Your task to perform on an android device: Go to battery settings Image 0: 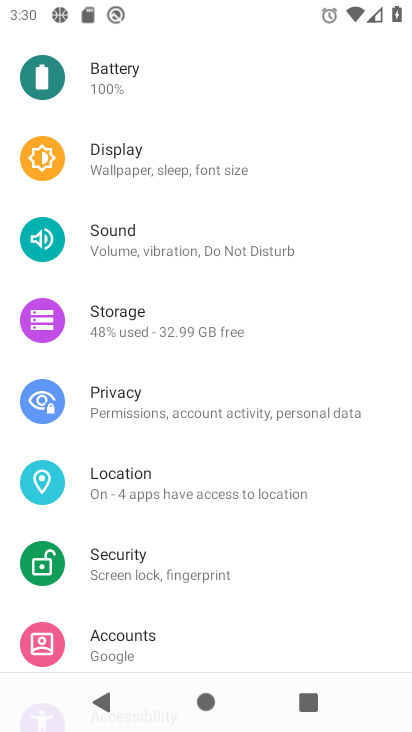
Step 0: click (133, 72)
Your task to perform on an android device: Go to battery settings Image 1: 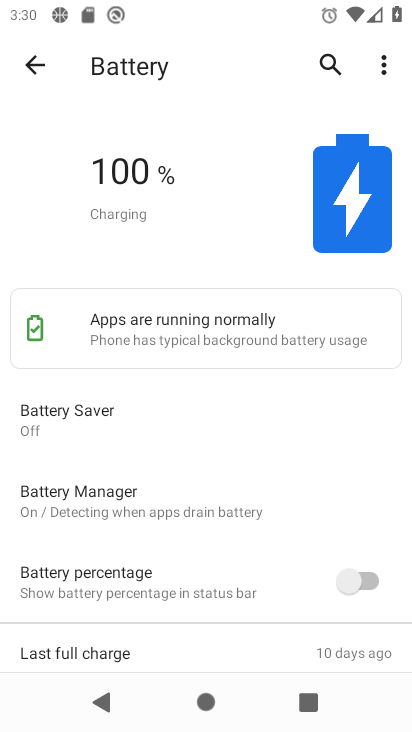
Step 1: task complete